Your task to perform on an android device: create a new album in the google photos Image 0: 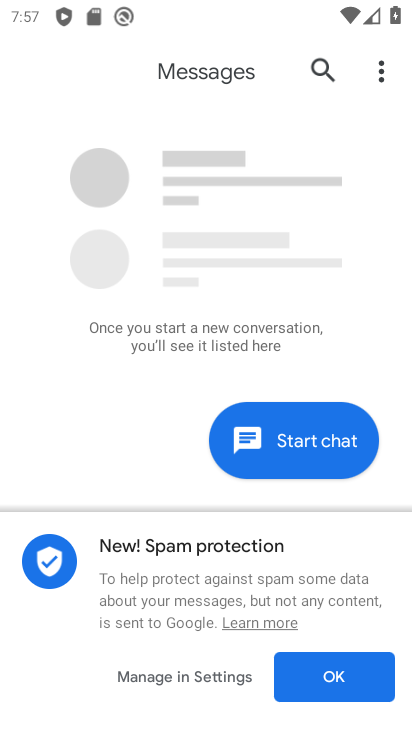
Step 0: press home button
Your task to perform on an android device: create a new album in the google photos Image 1: 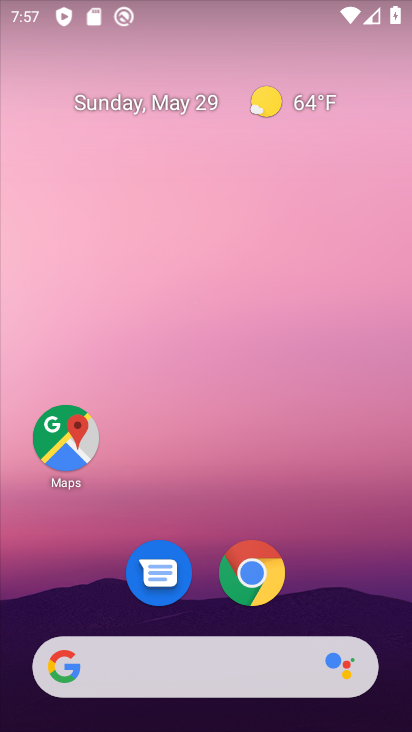
Step 1: drag from (55, 630) to (221, 134)
Your task to perform on an android device: create a new album in the google photos Image 2: 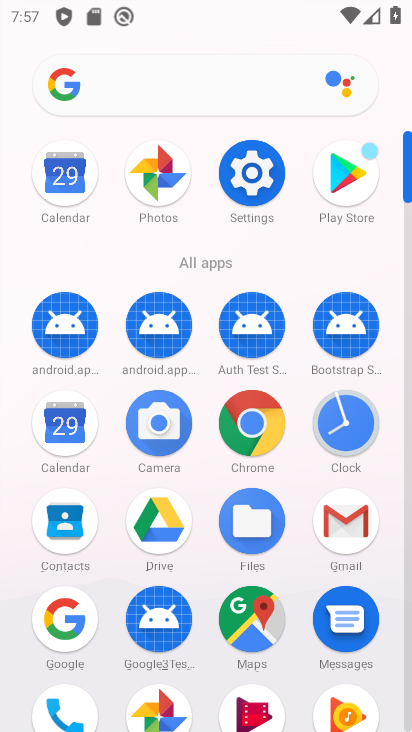
Step 2: drag from (196, 608) to (272, 390)
Your task to perform on an android device: create a new album in the google photos Image 3: 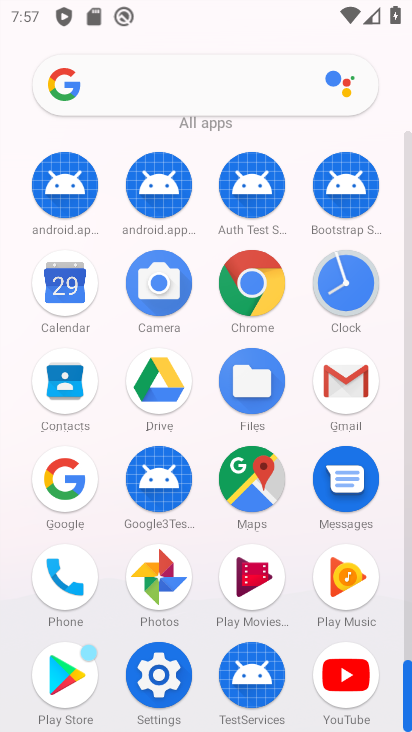
Step 3: click (161, 591)
Your task to perform on an android device: create a new album in the google photos Image 4: 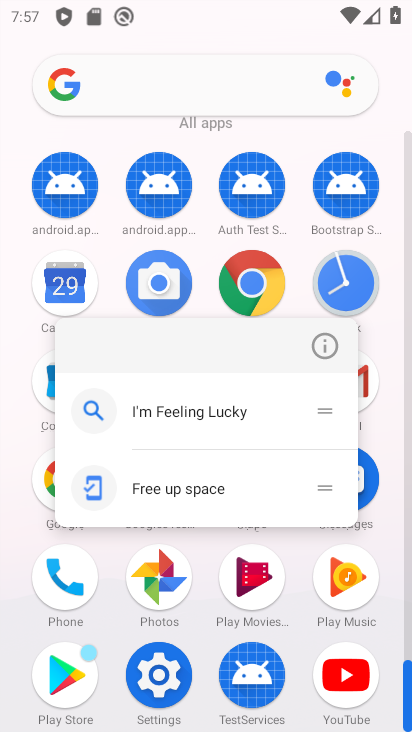
Step 4: click (170, 577)
Your task to perform on an android device: create a new album in the google photos Image 5: 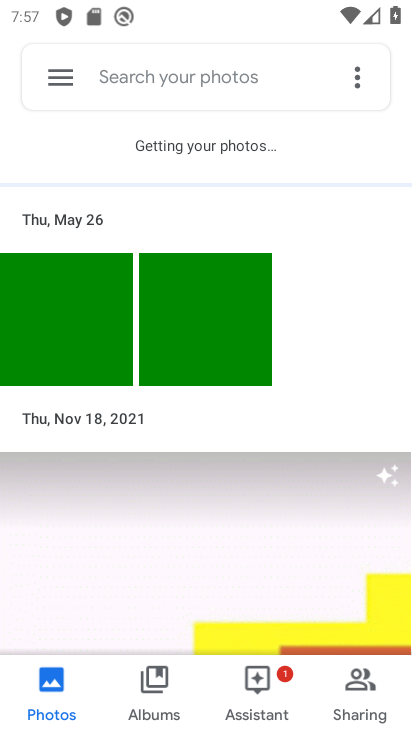
Step 5: click (360, 74)
Your task to perform on an android device: create a new album in the google photos Image 6: 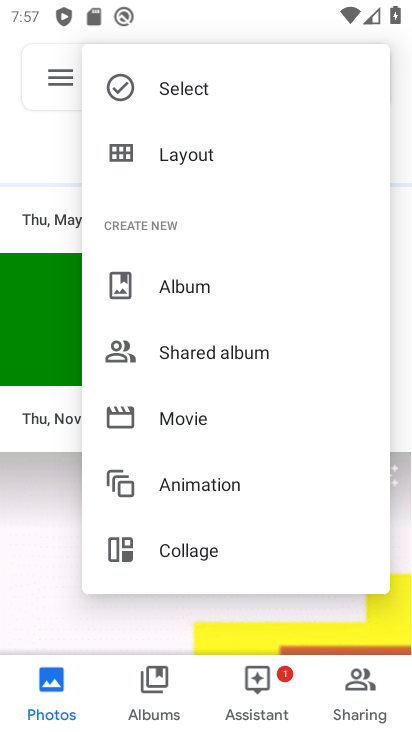
Step 6: click (249, 302)
Your task to perform on an android device: create a new album in the google photos Image 7: 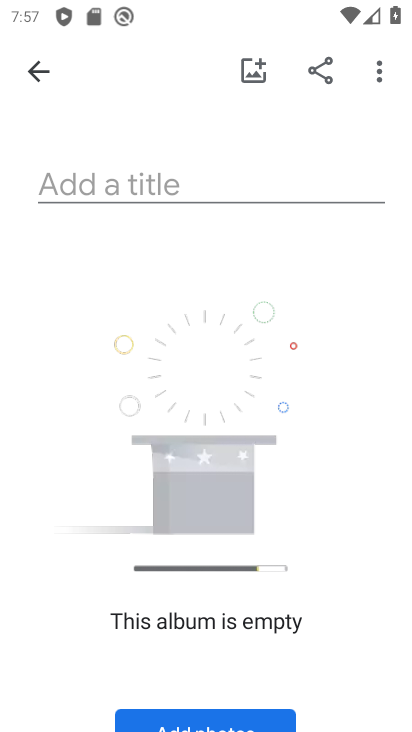
Step 7: click (213, 190)
Your task to perform on an android device: create a new album in the google photos Image 8: 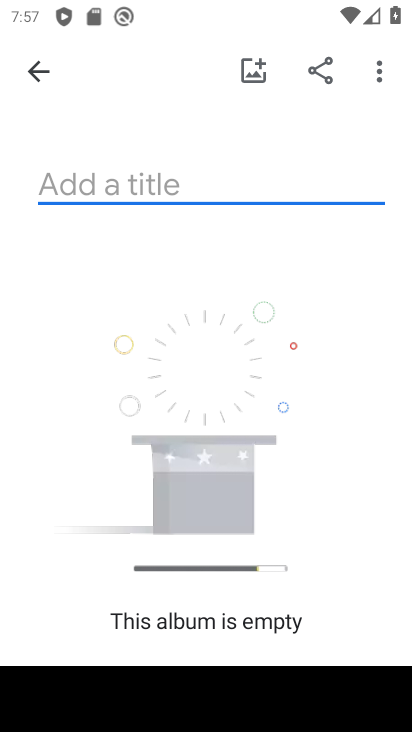
Step 8: type "xcxcxc"
Your task to perform on an android device: create a new album in the google photos Image 9: 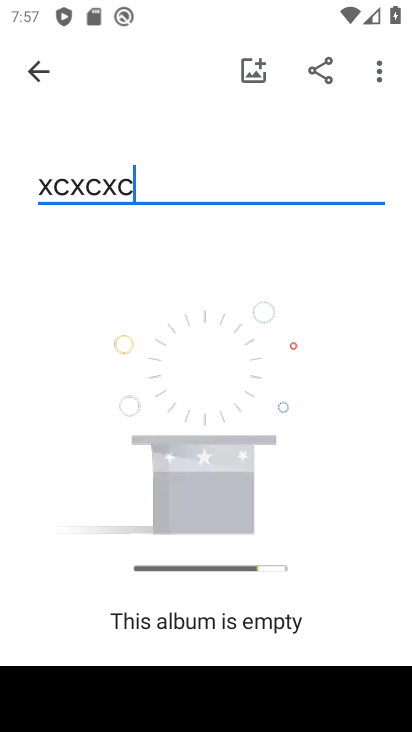
Step 9: click (248, 78)
Your task to perform on an android device: create a new album in the google photos Image 10: 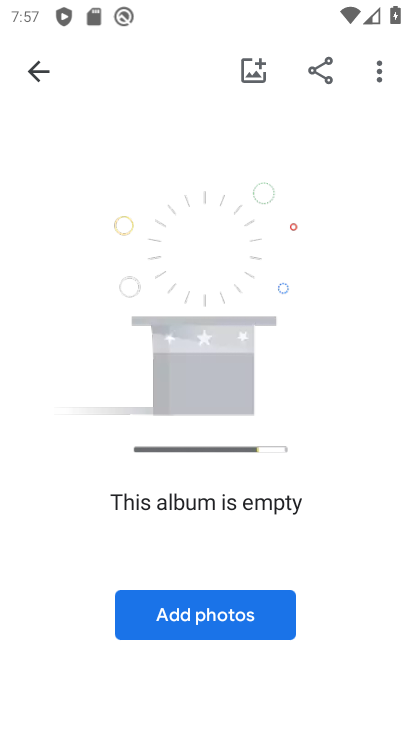
Step 10: click (227, 614)
Your task to perform on an android device: create a new album in the google photos Image 11: 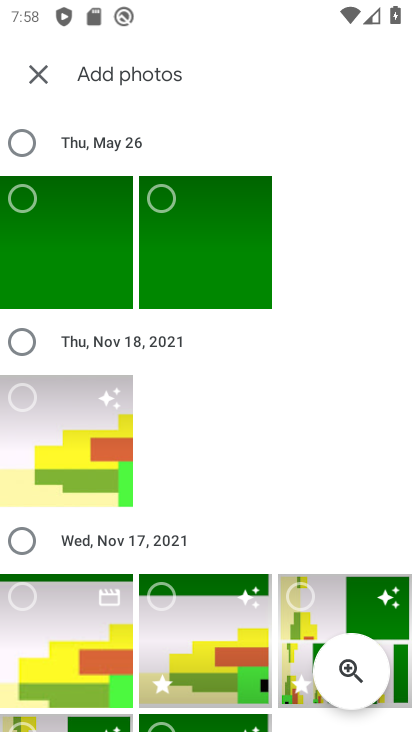
Step 11: click (24, 542)
Your task to perform on an android device: create a new album in the google photos Image 12: 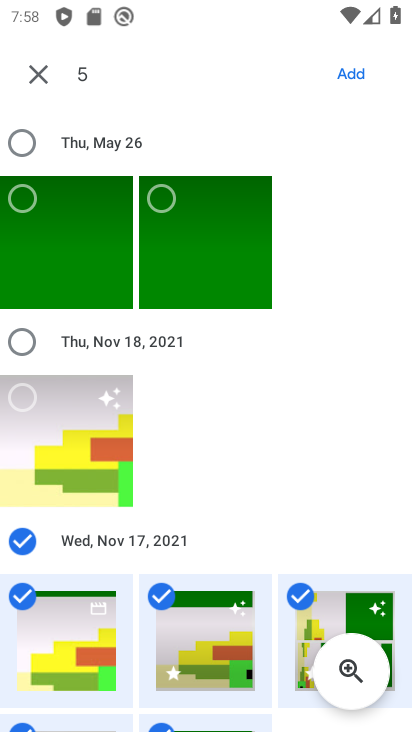
Step 12: click (362, 68)
Your task to perform on an android device: create a new album in the google photos Image 13: 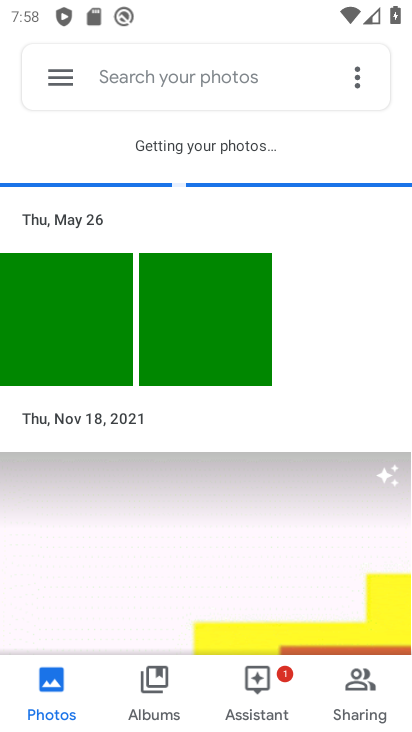
Step 13: click (368, 86)
Your task to perform on an android device: create a new album in the google photos Image 14: 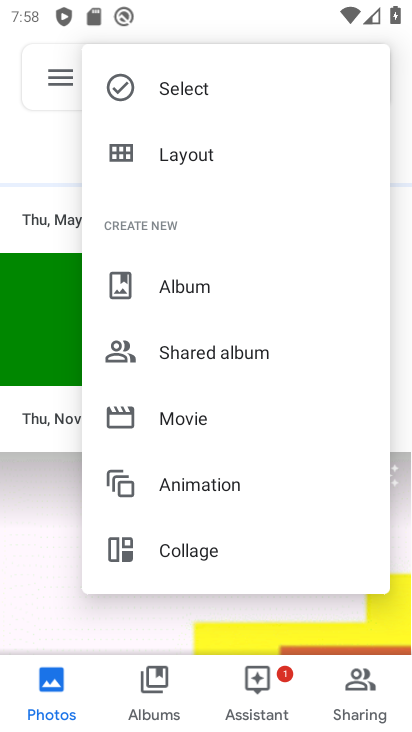
Step 14: click (268, 292)
Your task to perform on an android device: create a new album in the google photos Image 15: 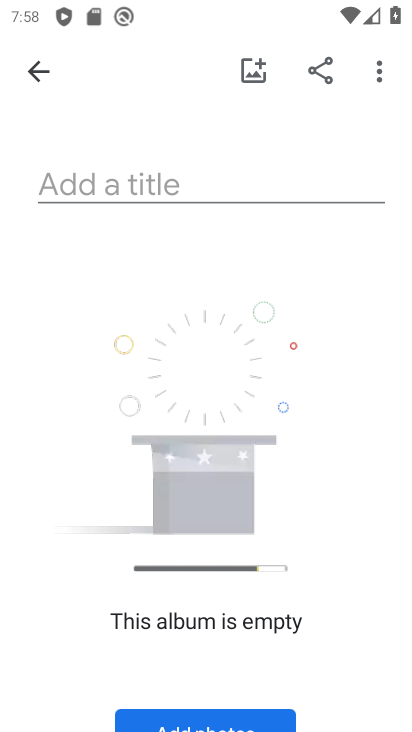
Step 15: click (299, 183)
Your task to perform on an android device: create a new album in the google photos Image 16: 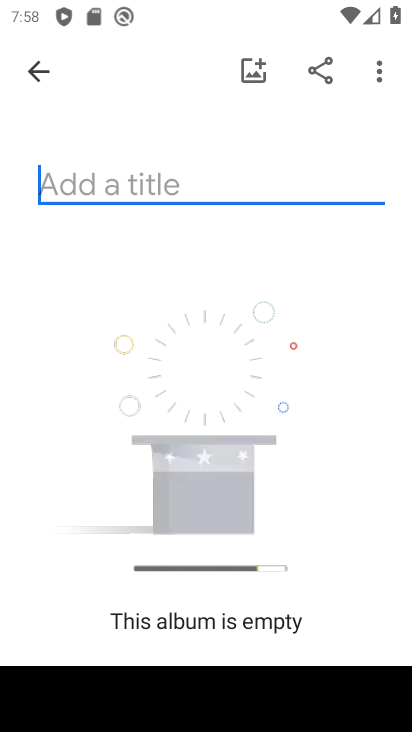
Step 16: type "xcxcxcx"
Your task to perform on an android device: create a new album in the google photos Image 17: 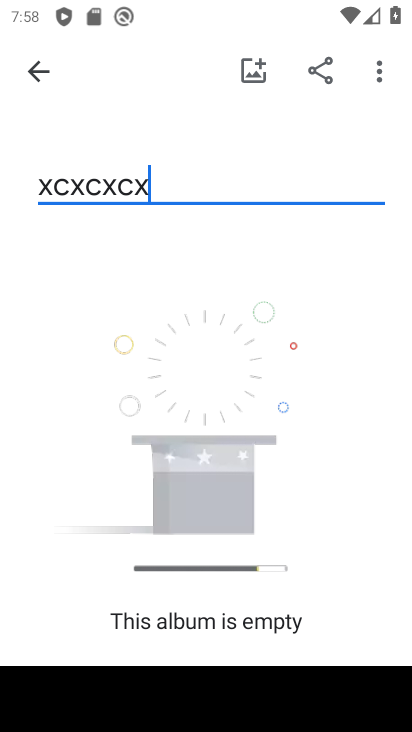
Step 17: drag from (157, 528) to (234, 233)
Your task to perform on an android device: create a new album in the google photos Image 18: 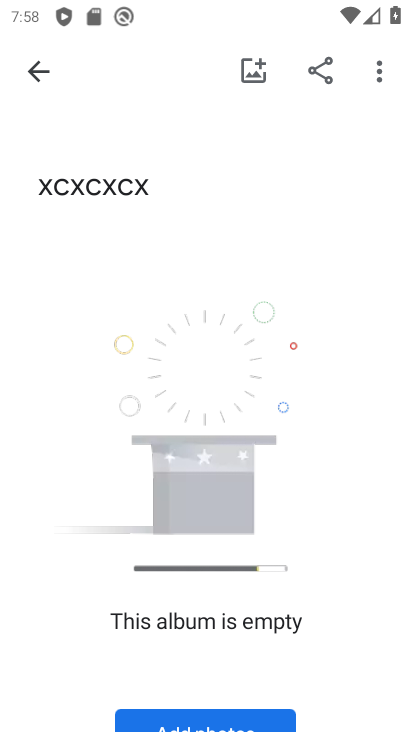
Step 18: click (192, 718)
Your task to perform on an android device: create a new album in the google photos Image 19: 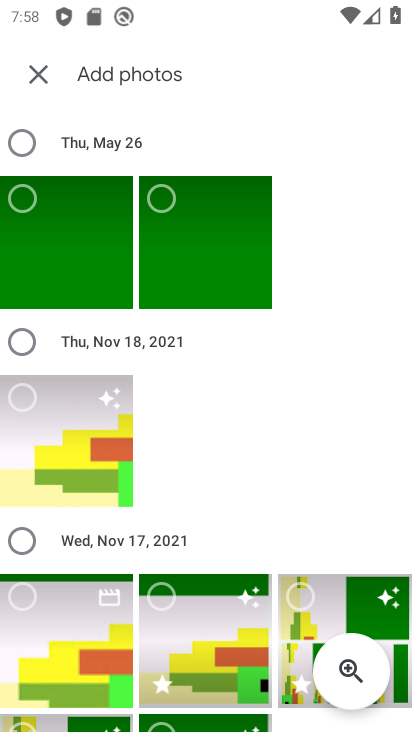
Step 19: click (20, 526)
Your task to perform on an android device: create a new album in the google photos Image 20: 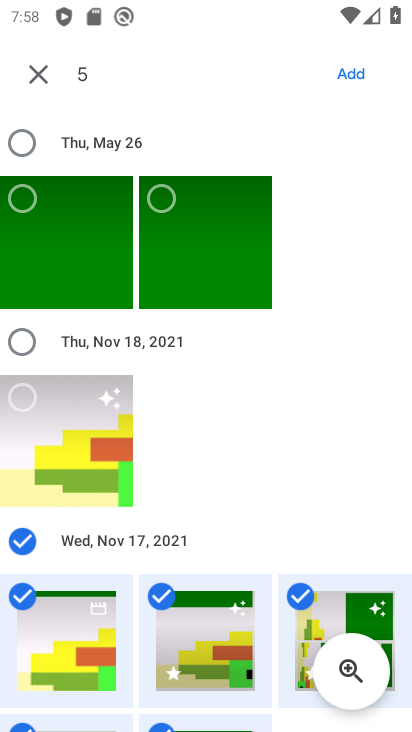
Step 20: click (372, 81)
Your task to perform on an android device: create a new album in the google photos Image 21: 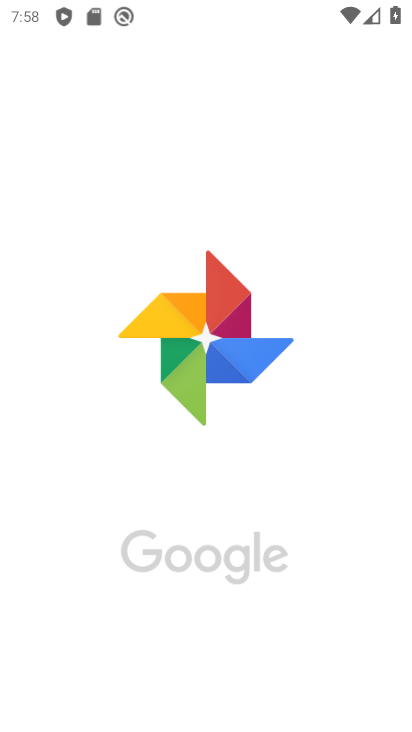
Step 21: task complete